Your task to perform on an android device: Open accessibility settings Image 0: 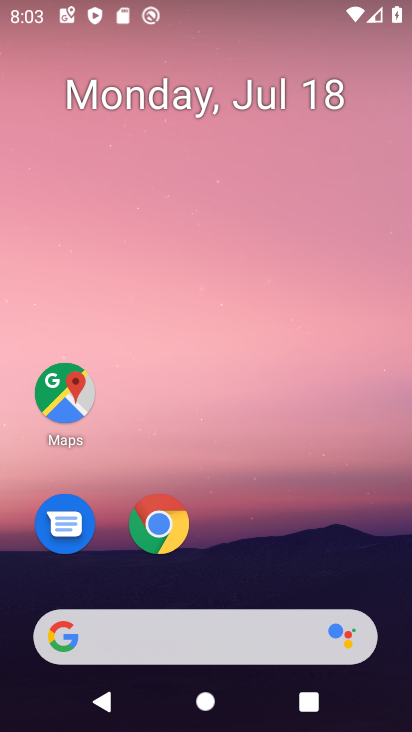
Step 0: drag from (284, 547) to (284, 41)
Your task to perform on an android device: Open accessibility settings Image 1: 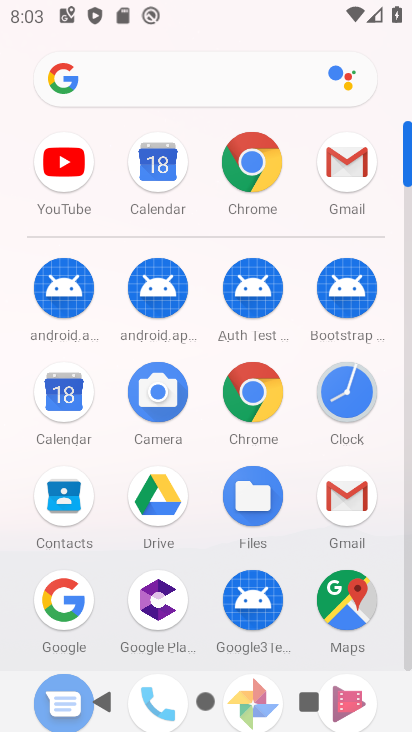
Step 1: drag from (291, 558) to (300, 253)
Your task to perform on an android device: Open accessibility settings Image 2: 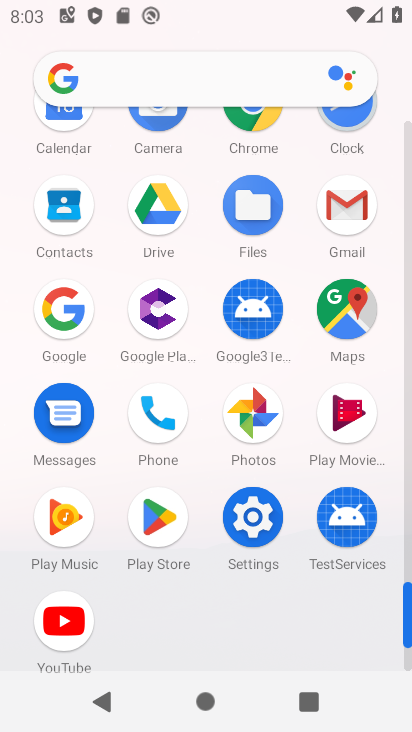
Step 2: click (262, 512)
Your task to perform on an android device: Open accessibility settings Image 3: 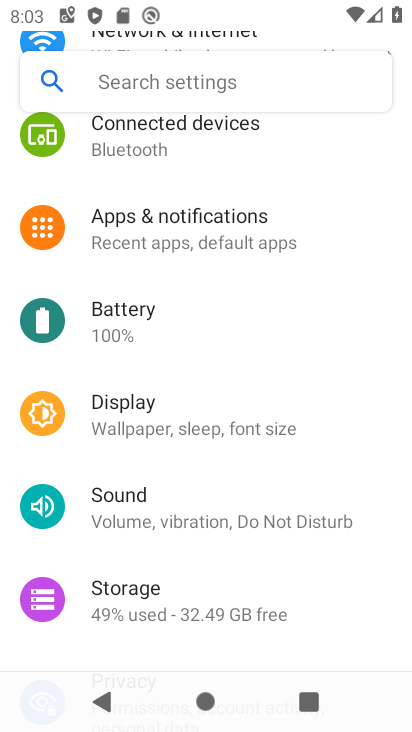
Step 3: drag from (248, 561) to (250, 206)
Your task to perform on an android device: Open accessibility settings Image 4: 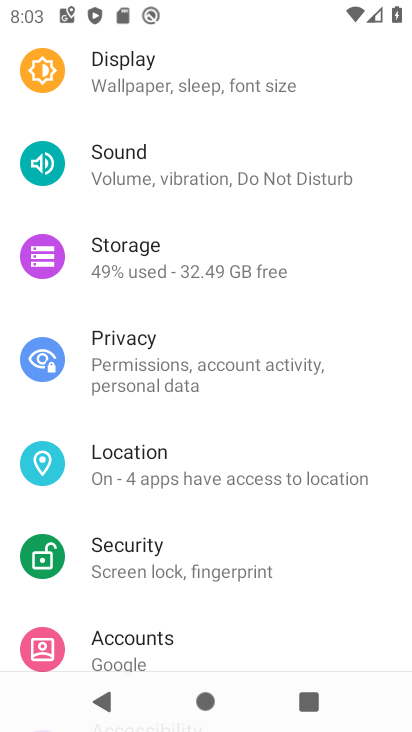
Step 4: drag from (228, 521) to (185, 175)
Your task to perform on an android device: Open accessibility settings Image 5: 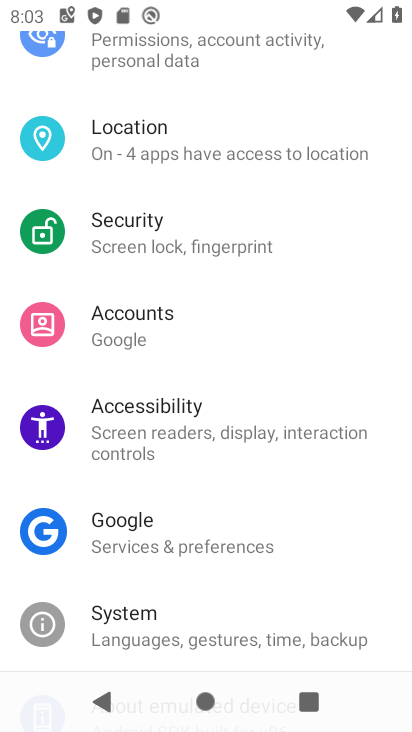
Step 5: click (212, 418)
Your task to perform on an android device: Open accessibility settings Image 6: 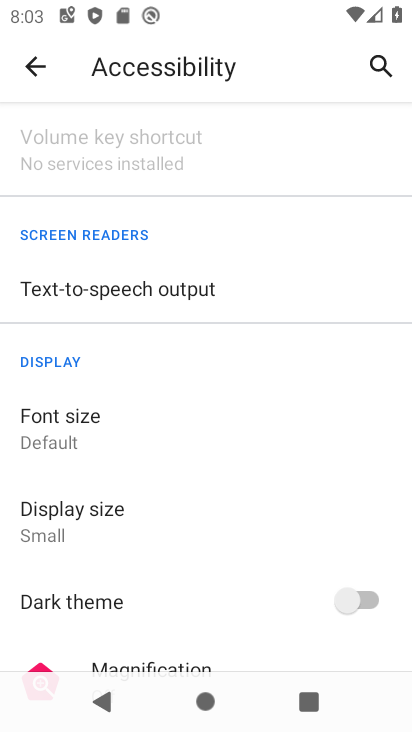
Step 6: task complete